Your task to perform on an android device: Open Android settings Image 0: 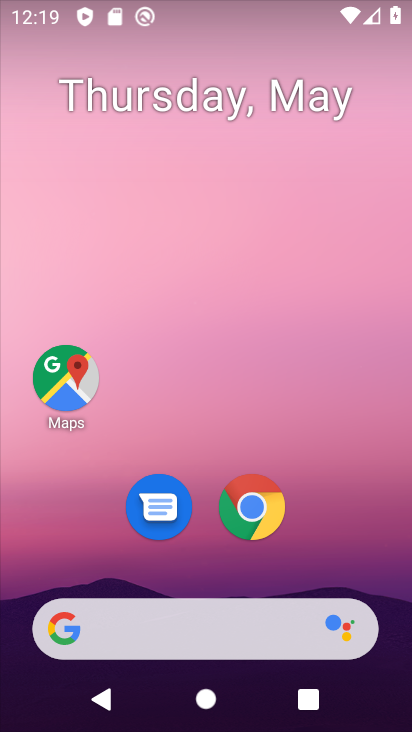
Step 0: drag from (168, 596) to (163, 186)
Your task to perform on an android device: Open Android settings Image 1: 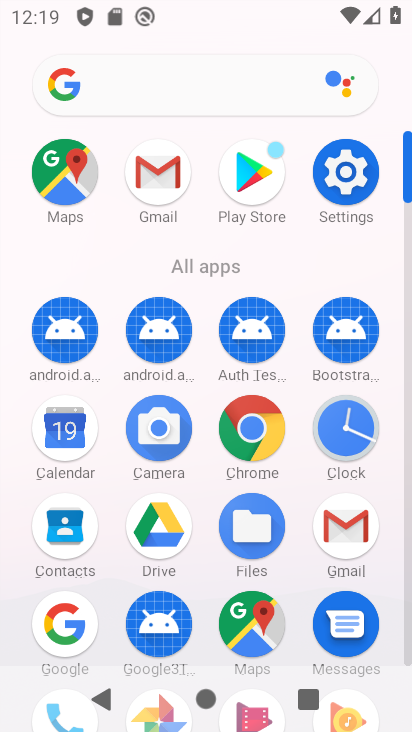
Step 1: click (344, 181)
Your task to perform on an android device: Open Android settings Image 2: 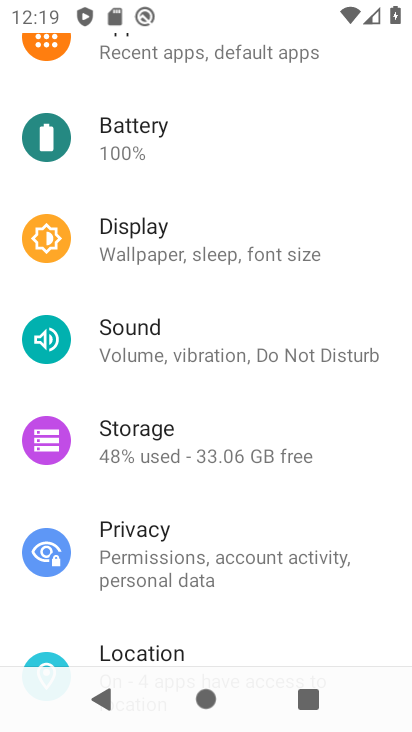
Step 2: task complete